Your task to perform on an android device: change the clock style Image 0: 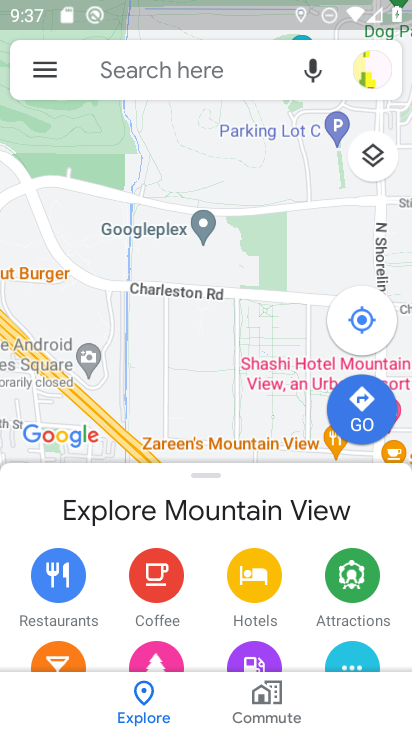
Step 0: press back button
Your task to perform on an android device: change the clock style Image 1: 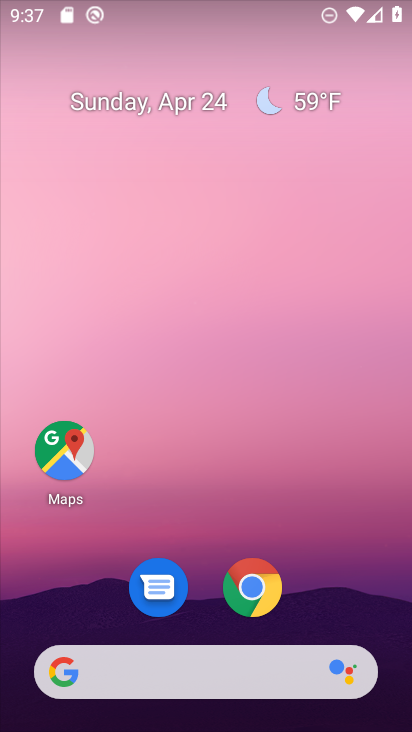
Step 1: drag from (210, 501) to (259, 31)
Your task to perform on an android device: change the clock style Image 2: 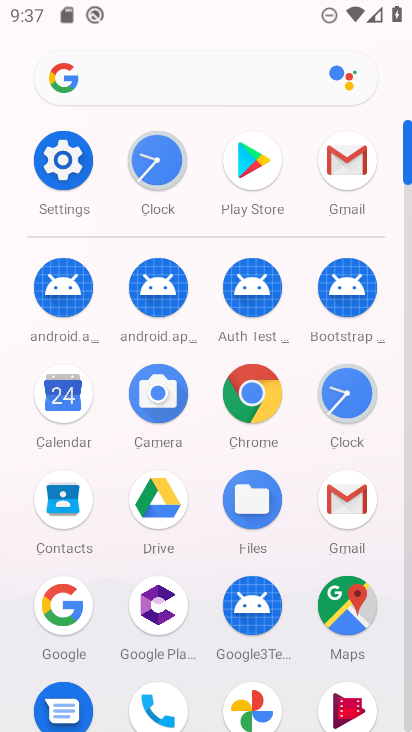
Step 2: click (156, 160)
Your task to perform on an android device: change the clock style Image 3: 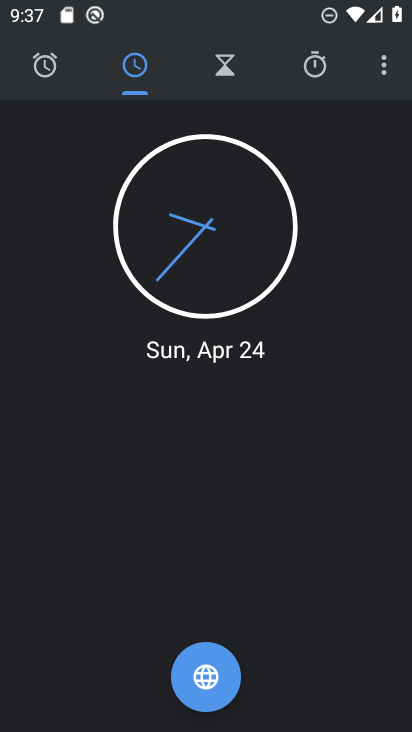
Step 3: click (382, 66)
Your task to perform on an android device: change the clock style Image 4: 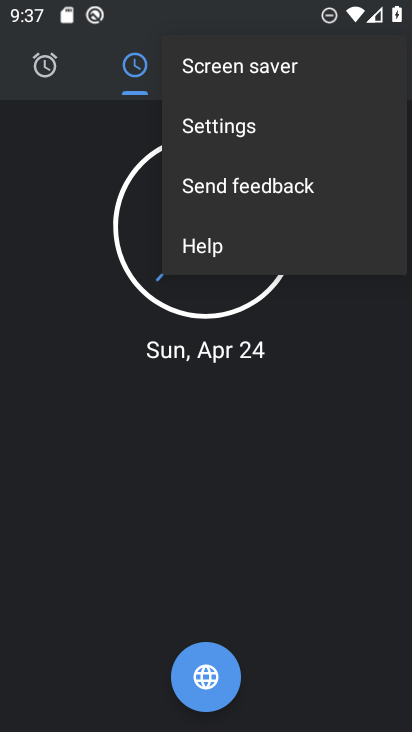
Step 4: click (243, 121)
Your task to perform on an android device: change the clock style Image 5: 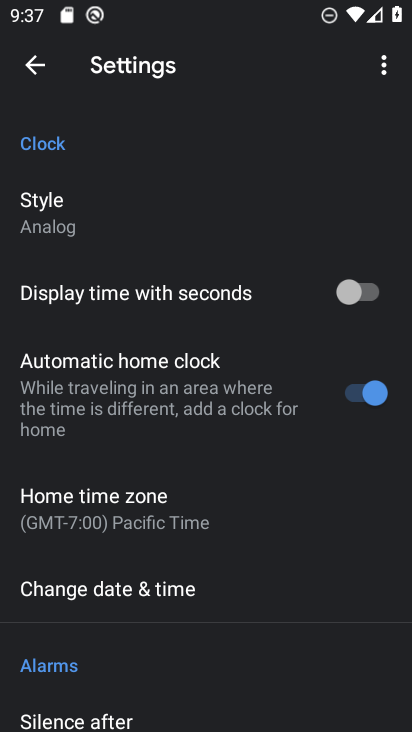
Step 5: click (74, 225)
Your task to perform on an android device: change the clock style Image 6: 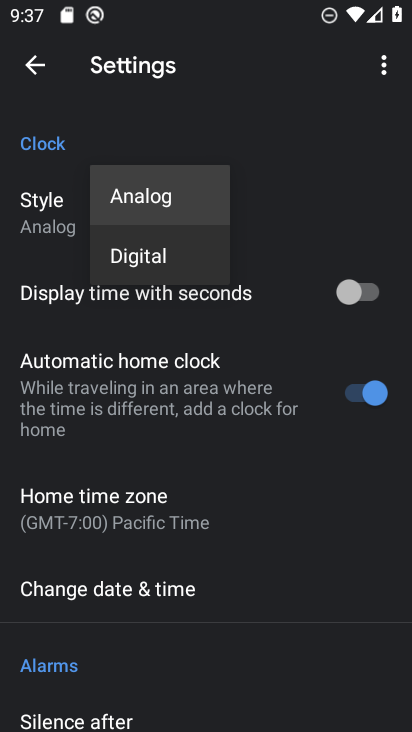
Step 6: click (130, 259)
Your task to perform on an android device: change the clock style Image 7: 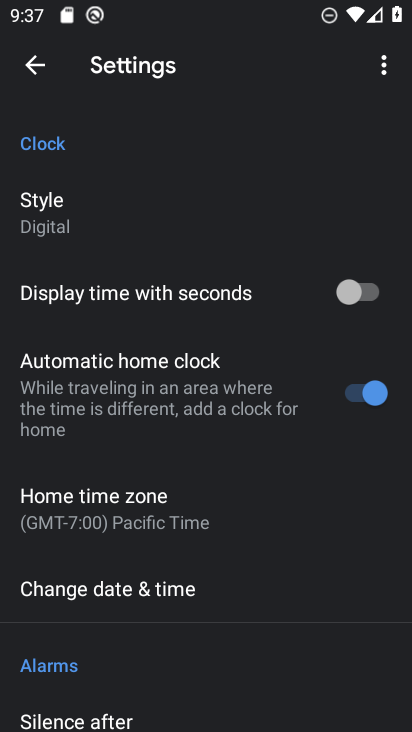
Step 7: task complete